Your task to perform on an android device: Search for sushi restaurants on Maps Image 0: 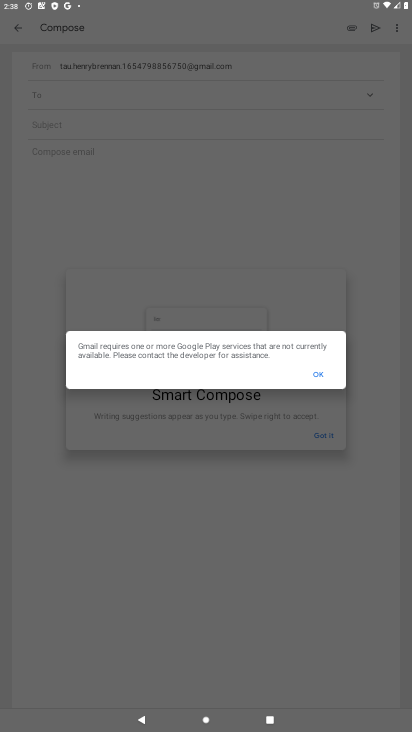
Step 0: press home button
Your task to perform on an android device: Search for sushi restaurants on Maps Image 1: 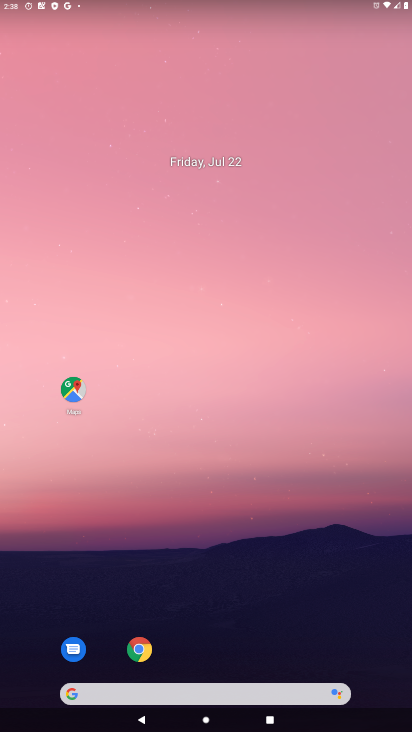
Step 1: drag from (288, 555) to (295, 71)
Your task to perform on an android device: Search for sushi restaurants on Maps Image 2: 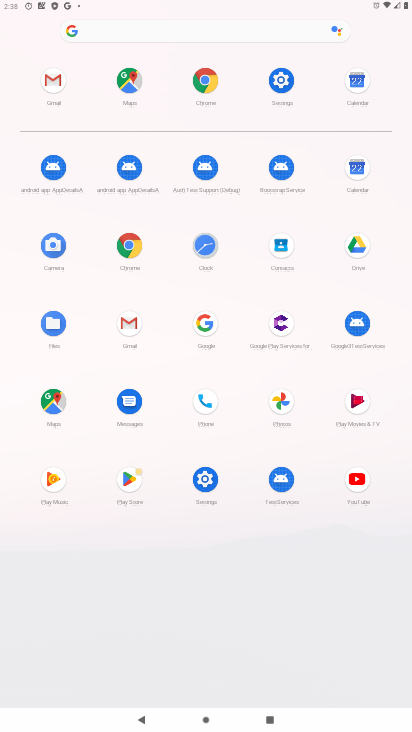
Step 2: click (138, 77)
Your task to perform on an android device: Search for sushi restaurants on Maps Image 3: 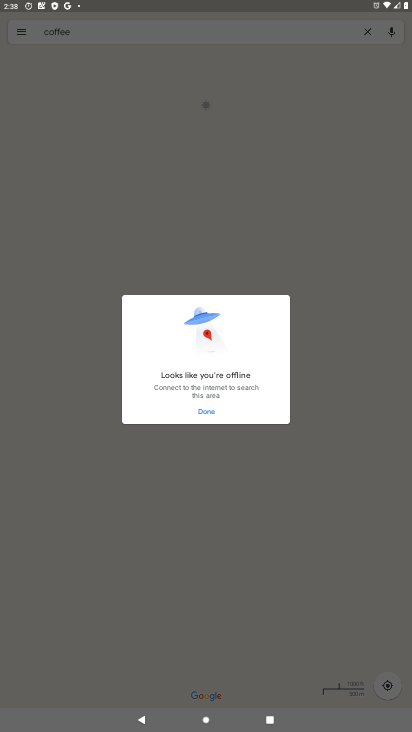
Step 3: click (206, 409)
Your task to perform on an android device: Search for sushi restaurants on Maps Image 4: 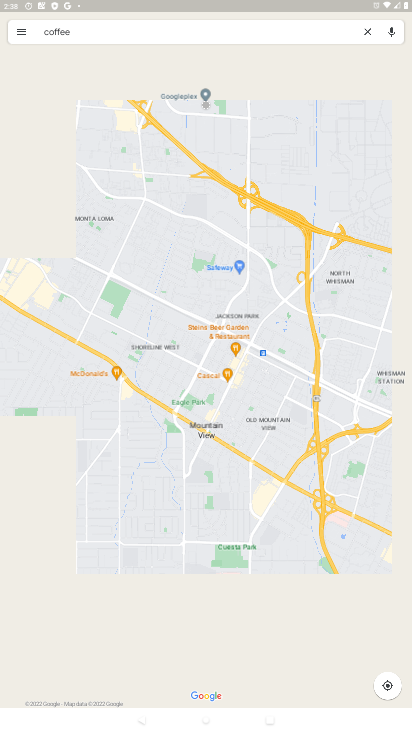
Step 4: click (220, 28)
Your task to perform on an android device: Search for sushi restaurants on Maps Image 5: 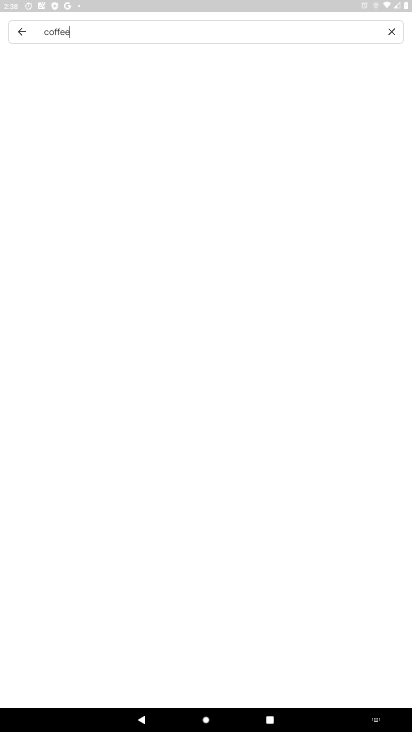
Step 5: click (392, 27)
Your task to perform on an android device: Search for sushi restaurants on Maps Image 6: 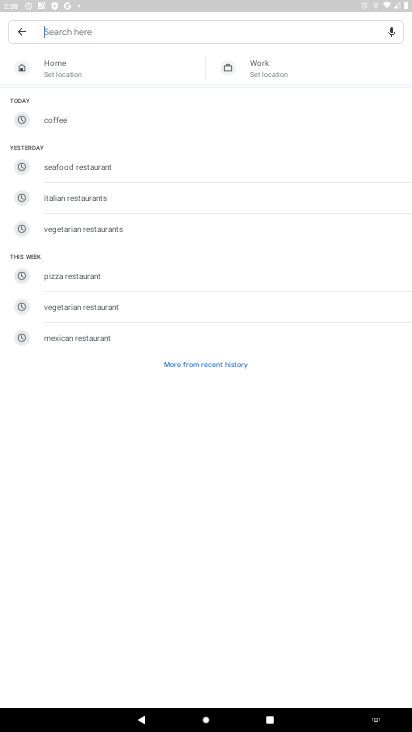
Step 6: type "sushi restaurants"
Your task to perform on an android device: Search for sushi restaurants on Maps Image 7: 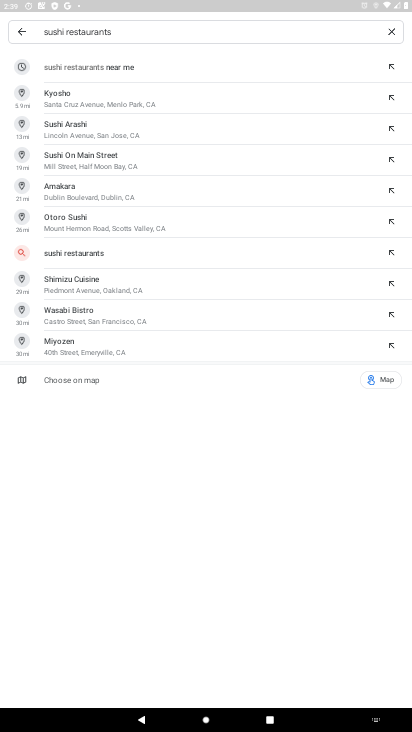
Step 7: press enter
Your task to perform on an android device: Search for sushi restaurants on Maps Image 8: 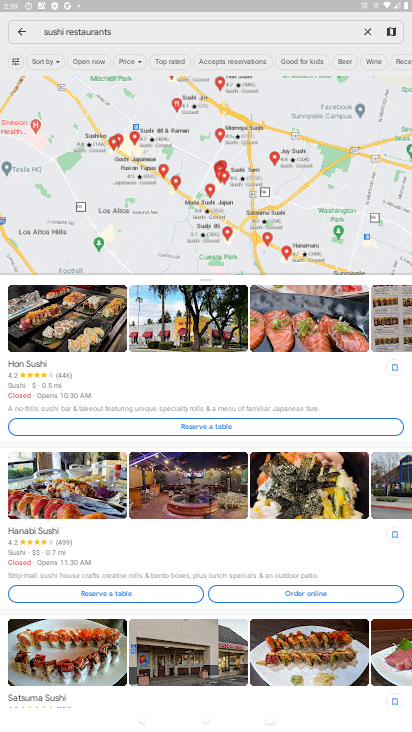
Step 8: task complete